Your task to perform on an android device: find snoozed emails in the gmail app Image 0: 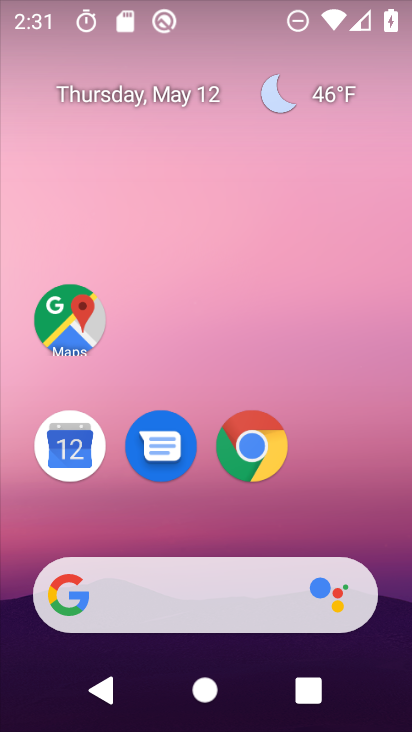
Step 0: drag from (186, 524) to (270, 132)
Your task to perform on an android device: find snoozed emails in the gmail app Image 1: 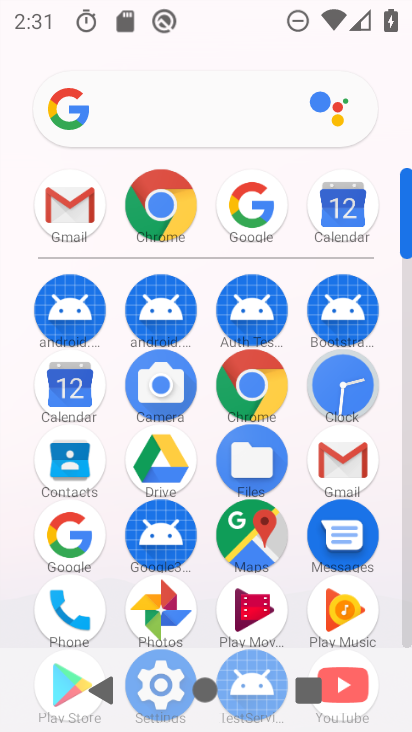
Step 1: click (326, 450)
Your task to perform on an android device: find snoozed emails in the gmail app Image 2: 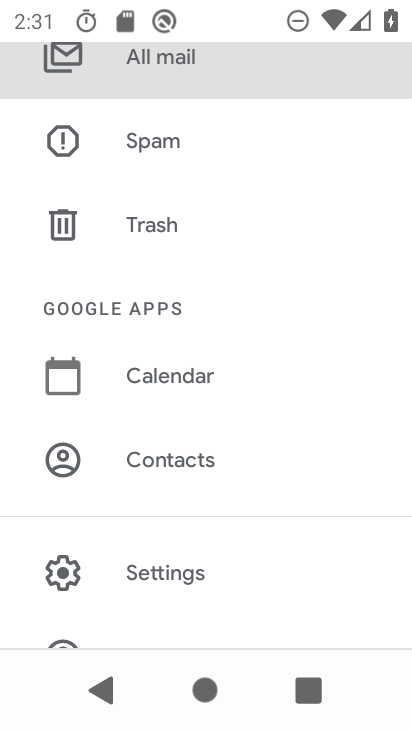
Step 2: drag from (196, 202) to (225, 479)
Your task to perform on an android device: find snoozed emails in the gmail app Image 3: 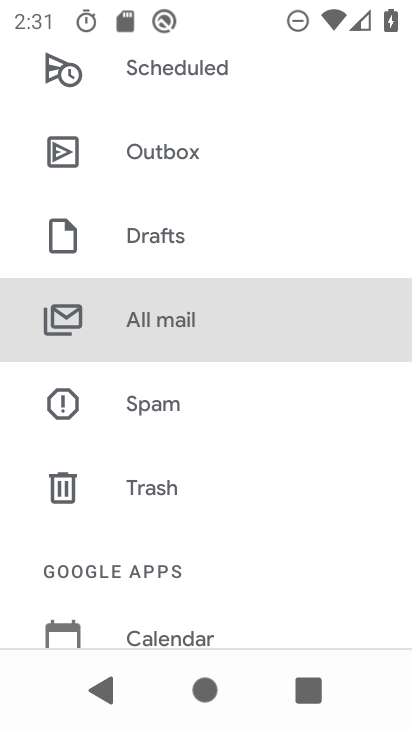
Step 3: drag from (210, 182) to (210, 489)
Your task to perform on an android device: find snoozed emails in the gmail app Image 4: 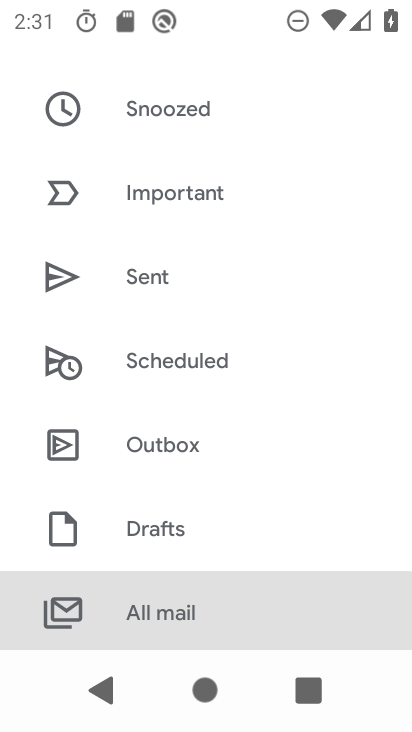
Step 4: click (183, 102)
Your task to perform on an android device: find snoozed emails in the gmail app Image 5: 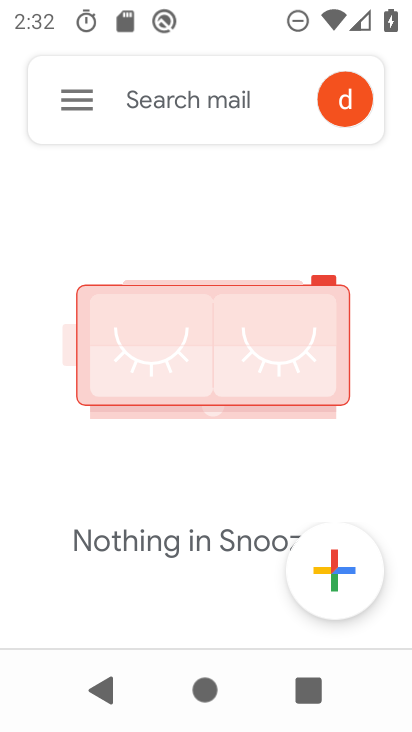
Step 5: task complete